Your task to perform on an android device: turn off wifi Image 0: 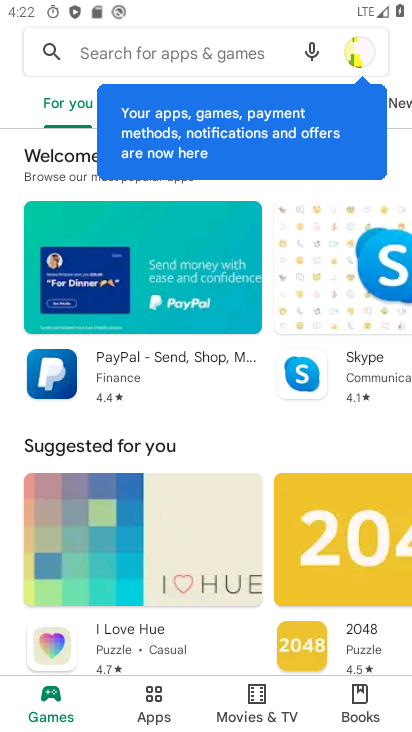
Step 0: press home button
Your task to perform on an android device: turn off wifi Image 1: 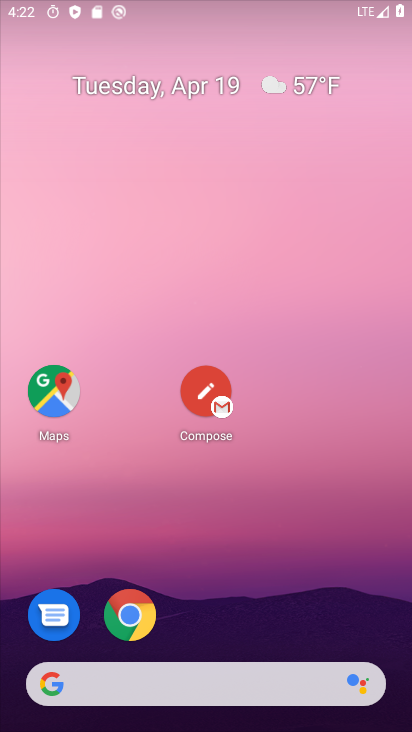
Step 1: drag from (179, 653) to (162, 47)
Your task to perform on an android device: turn off wifi Image 2: 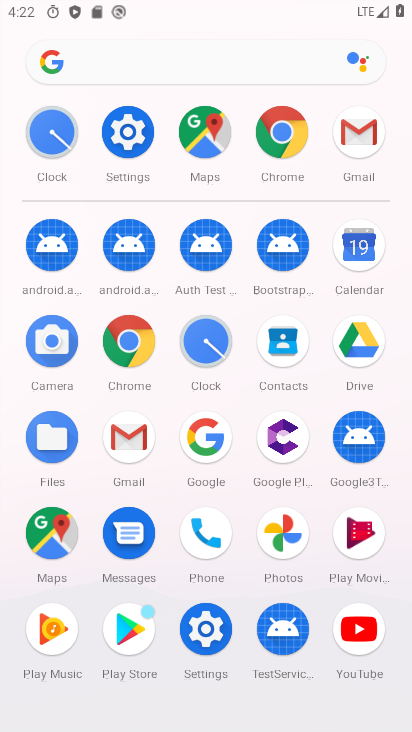
Step 2: click (211, 632)
Your task to perform on an android device: turn off wifi Image 3: 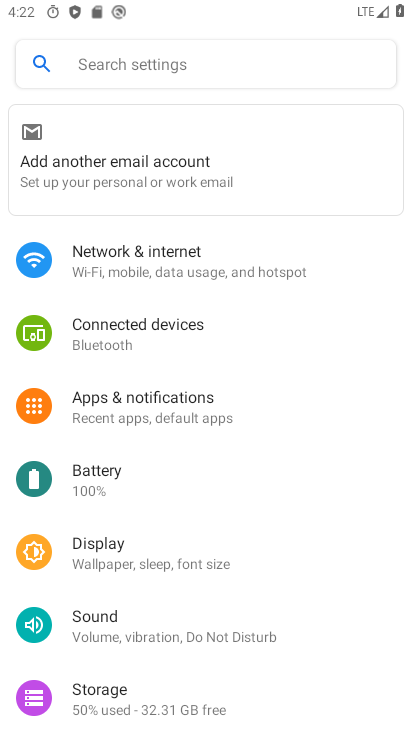
Step 3: click (187, 265)
Your task to perform on an android device: turn off wifi Image 4: 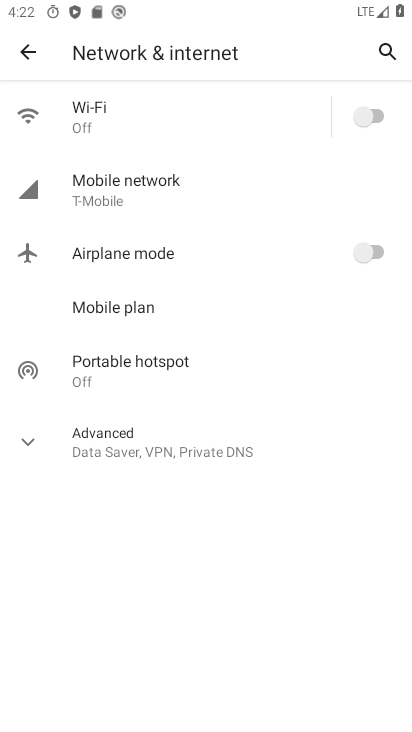
Step 4: task complete